Your task to perform on an android device: move a message to another label in the gmail app Image 0: 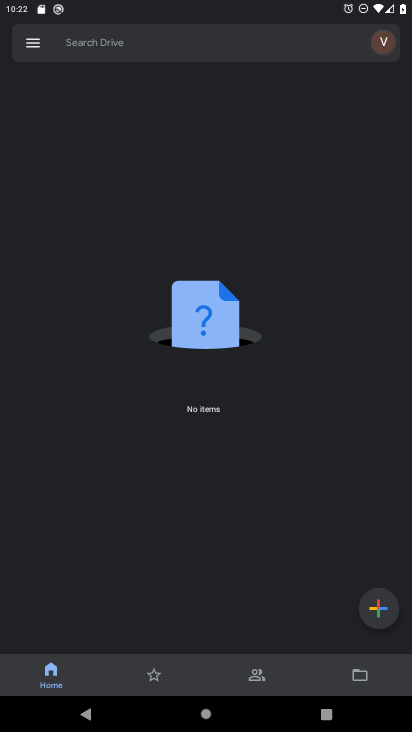
Step 0: press home button
Your task to perform on an android device: move a message to another label in the gmail app Image 1: 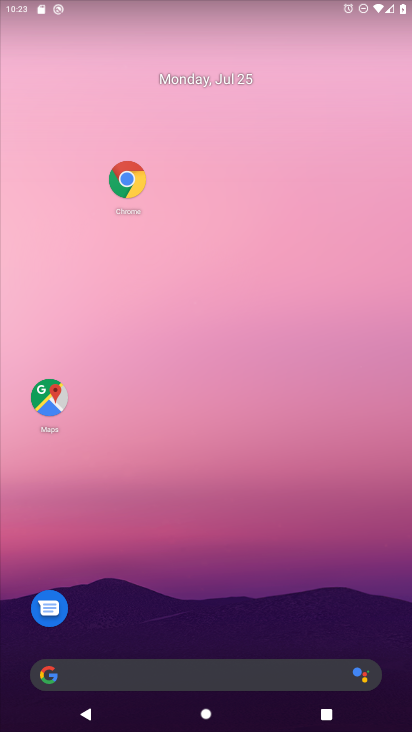
Step 1: drag from (257, 675) to (245, 104)
Your task to perform on an android device: move a message to another label in the gmail app Image 2: 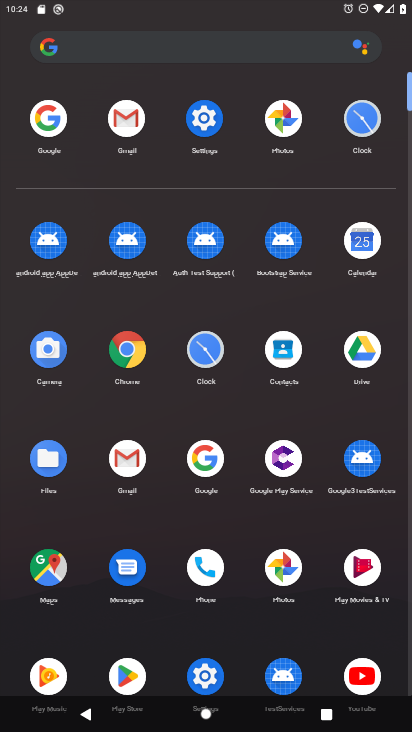
Step 2: click (132, 457)
Your task to perform on an android device: move a message to another label in the gmail app Image 3: 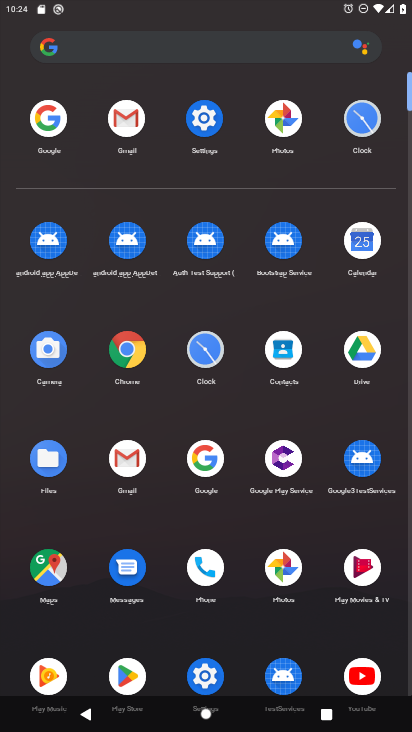
Step 3: click (132, 457)
Your task to perform on an android device: move a message to another label in the gmail app Image 4: 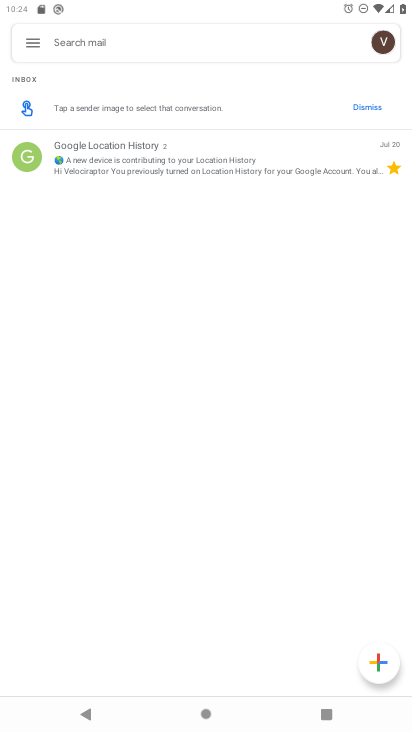
Step 4: click (308, 153)
Your task to perform on an android device: move a message to another label in the gmail app Image 5: 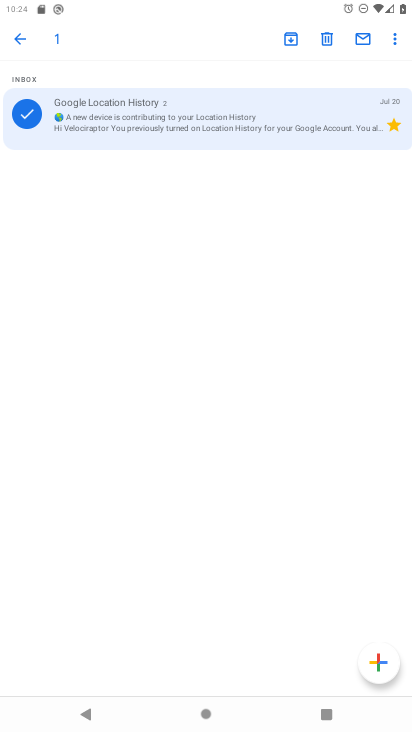
Step 5: click (398, 36)
Your task to perform on an android device: move a message to another label in the gmail app Image 6: 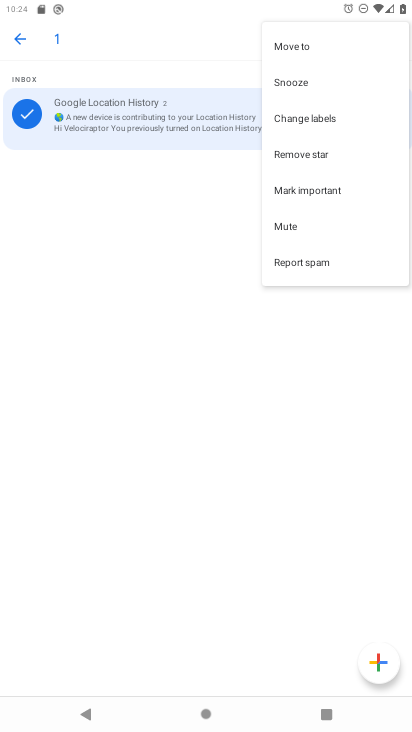
Step 6: click (339, 127)
Your task to perform on an android device: move a message to another label in the gmail app Image 7: 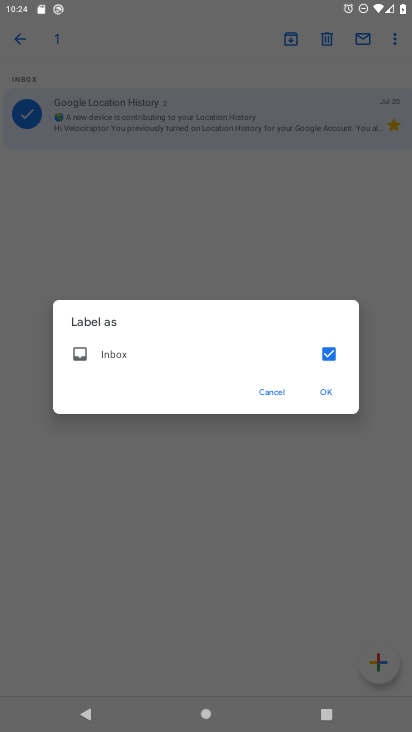
Step 7: click (327, 394)
Your task to perform on an android device: move a message to another label in the gmail app Image 8: 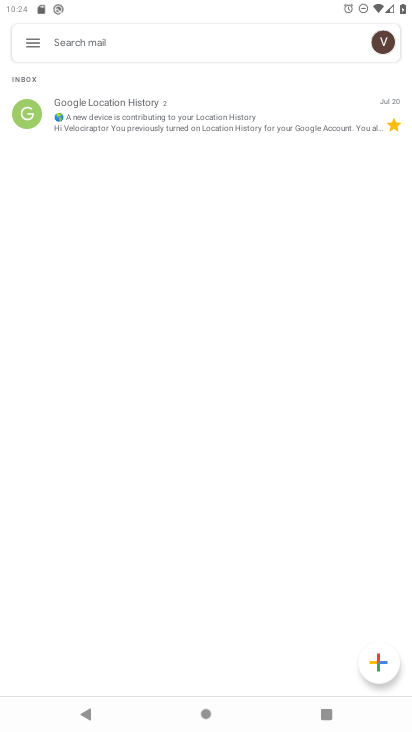
Step 8: task complete